Your task to perform on an android device: Open Android settings Image 0: 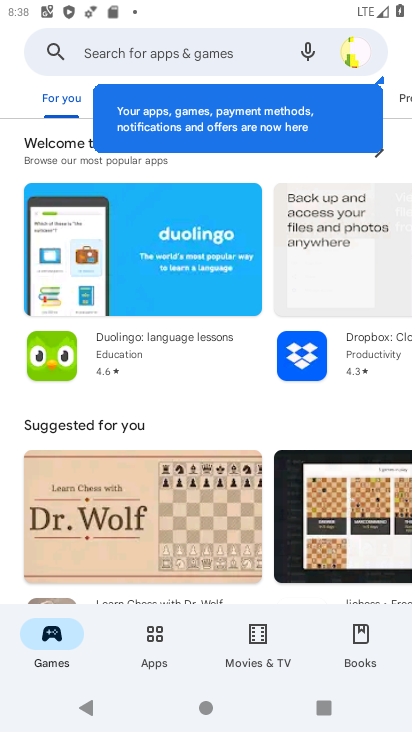
Step 0: press home button
Your task to perform on an android device: Open Android settings Image 1: 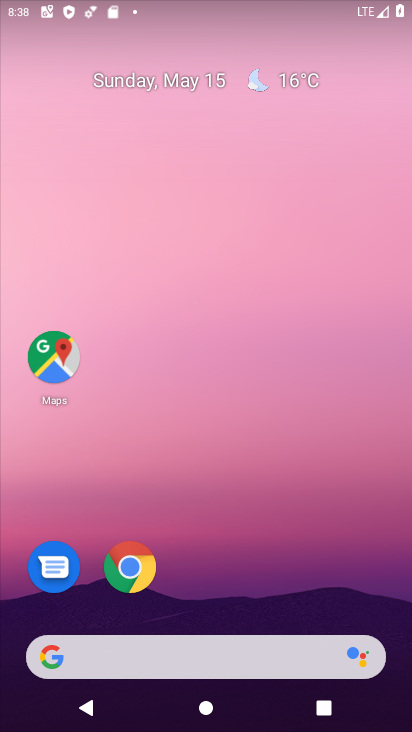
Step 1: drag from (213, 644) to (235, 108)
Your task to perform on an android device: Open Android settings Image 2: 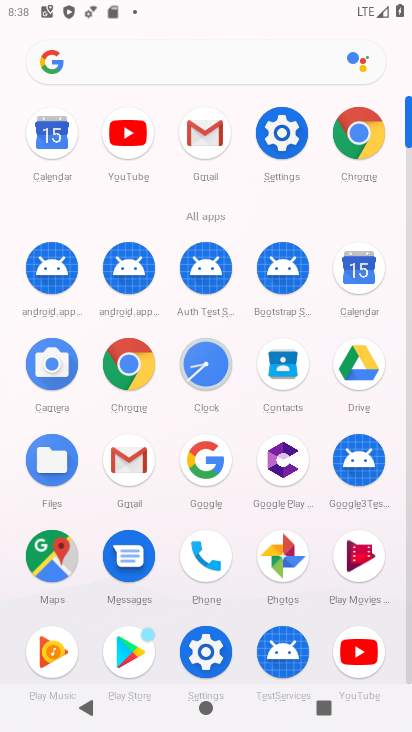
Step 2: click (271, 143)
Your task to perform on an android device: Open Android settings Image 3: 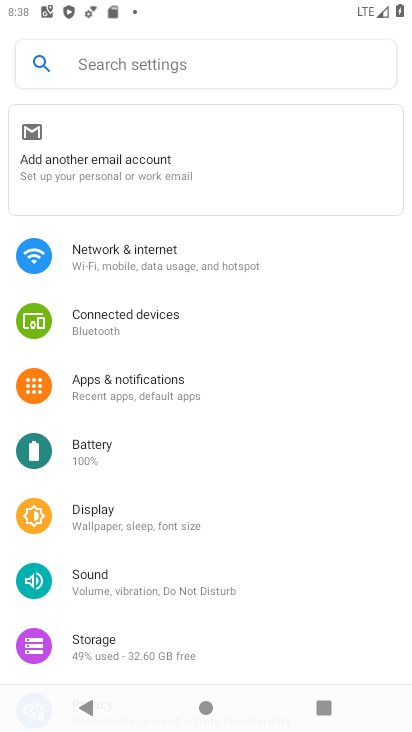
Step 3: task complete